Your task to perform on an android device: clear history in the chrome app Image 0: 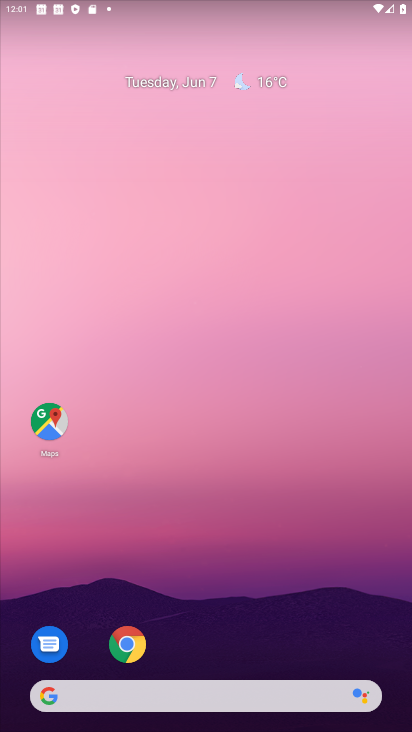
Step 0: drag from (191, 628) to (198, 418)
Your task to perform on an android device: clear history in the chrome app Image 1: 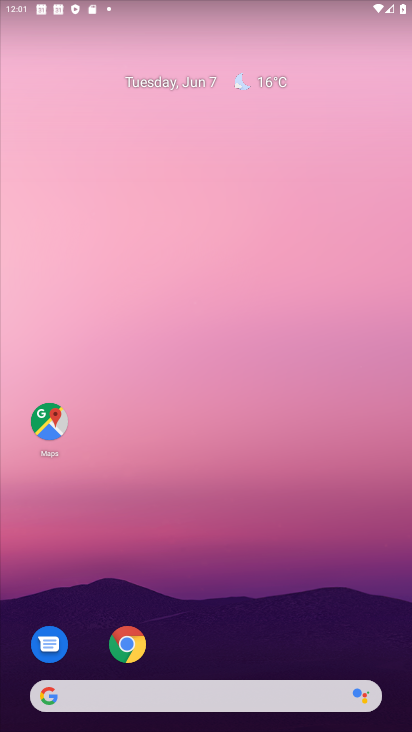
Step 1: drag from (204, 614) to (192, 178)
Your task to perform on an android device: clear history in the chrome app Image 2: 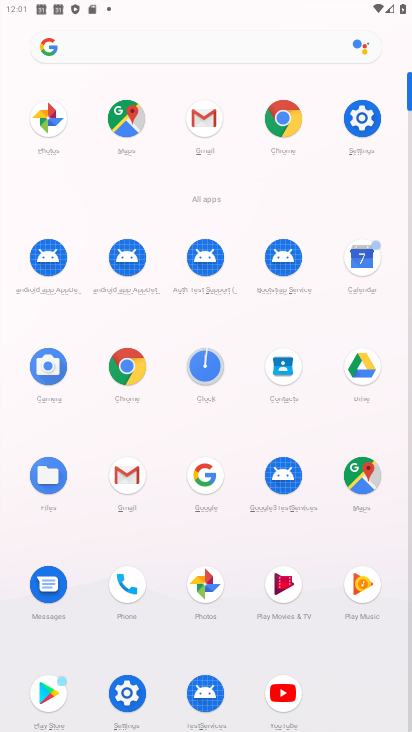
Step 2: click (278, 116)
Your task to perform on an android device: clear history in the chrome app Image 3: 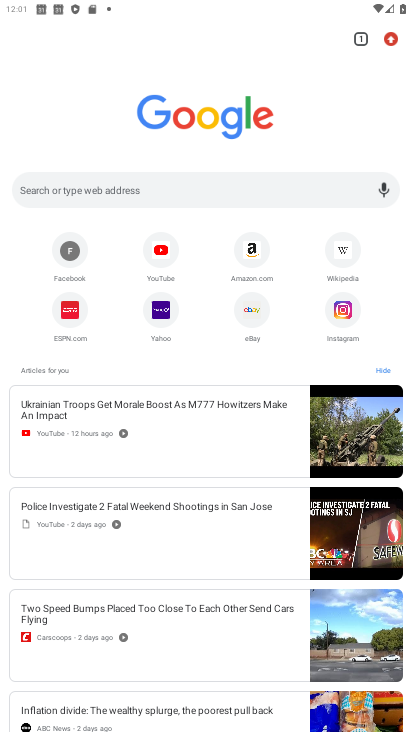
Step 3: press home button
Your task to perform on an android device: clear history in the chrome app Image 4: 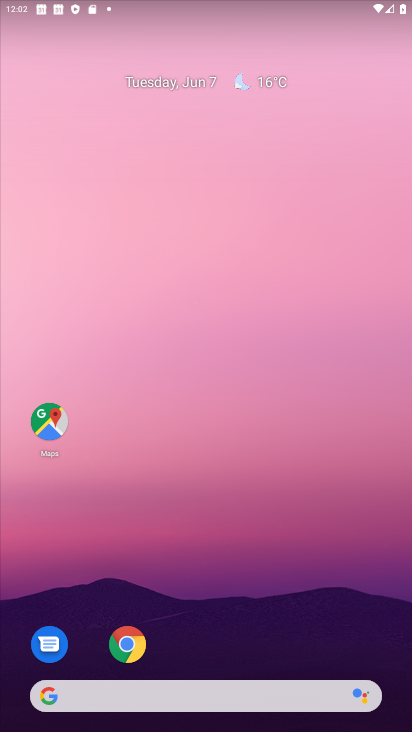
Step 4: drag from (238, 612) to (191, 318)
Your task to perform on an android device: clear history in the chrome app Image 5: 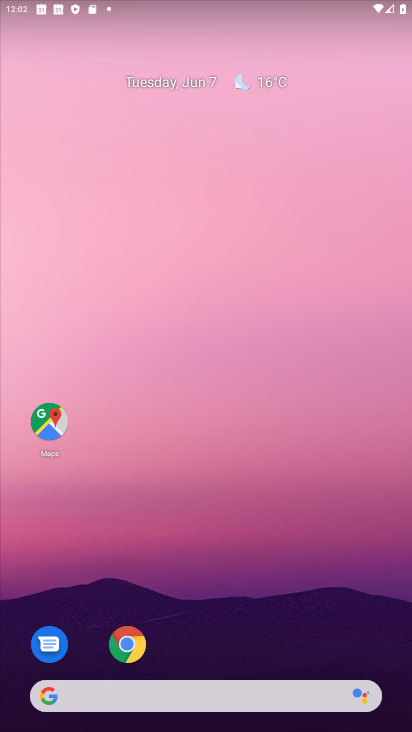
Step 5: drag from (270, 539) to (167, 225)
Your task to perform on an android device: clear history in the chrome app Image 6: 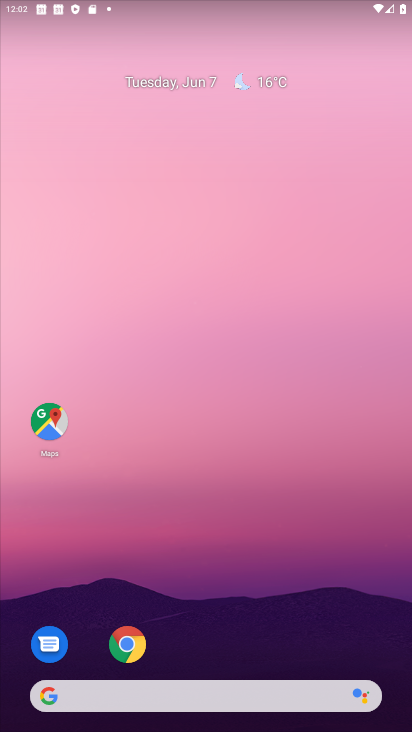
Step 6: click (121, 630)
Your task to perform on an android device: clear history in the chrome app Image 7: 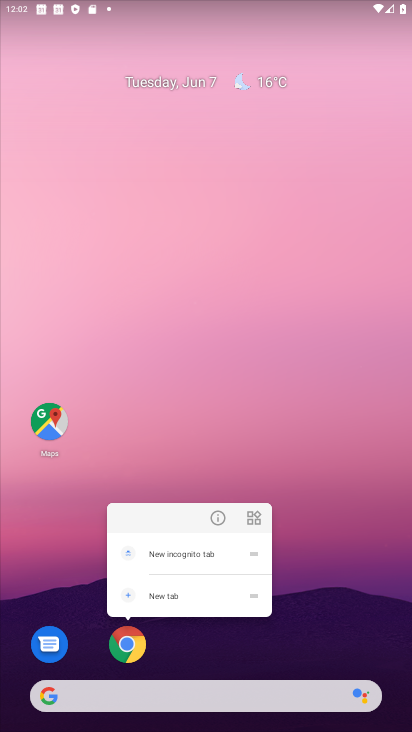
Step 7: click (227, 513)
Your task to perform on an android device: clear history in the chrome app Image 8: 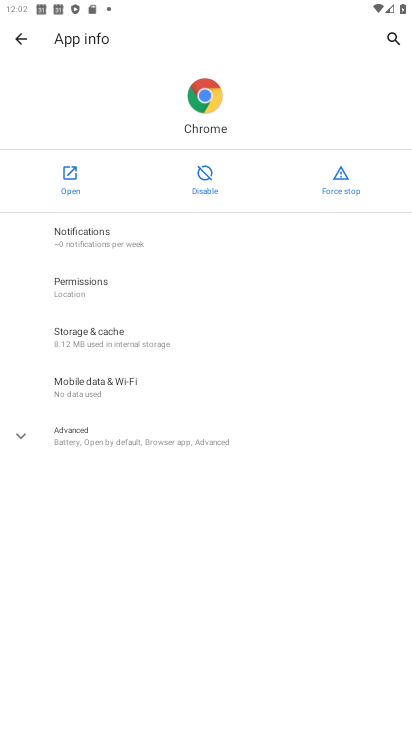
Step 8: click (72, 194)
Your task to perform on an android device: clear history in the chrome app Image 9: 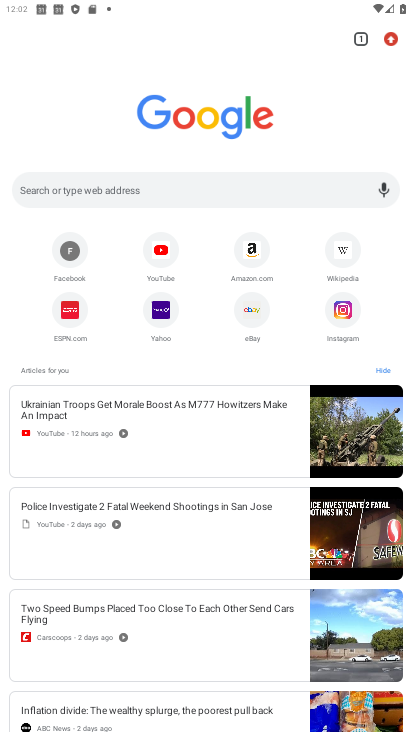
Step 9: click (389, 35)
Your task to perform on an android device: clear history in the chrome app Image 10: 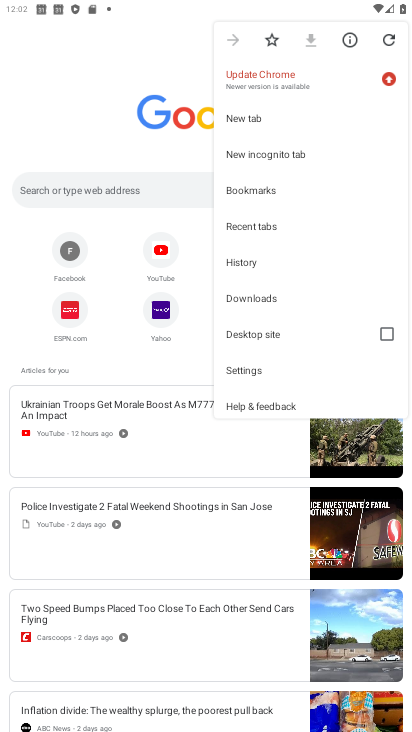
Step 10: click (263, 267)
Your task to perform on an android device: clear history in the chrome app Image 11: 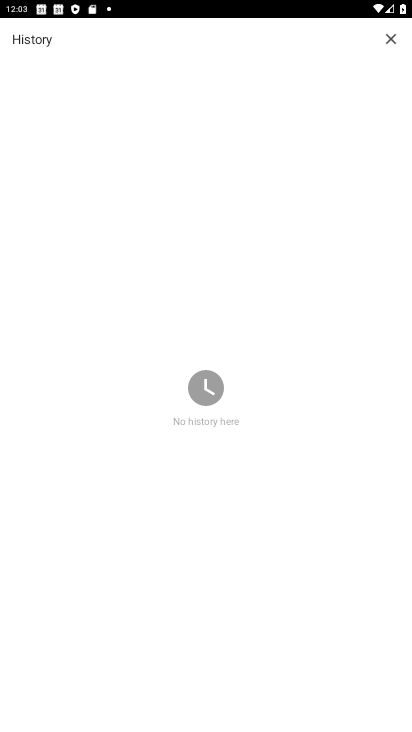
Step 11: task complete